Your task to perform on an android device: remove spam from my inbox in the gmail app Image 0: 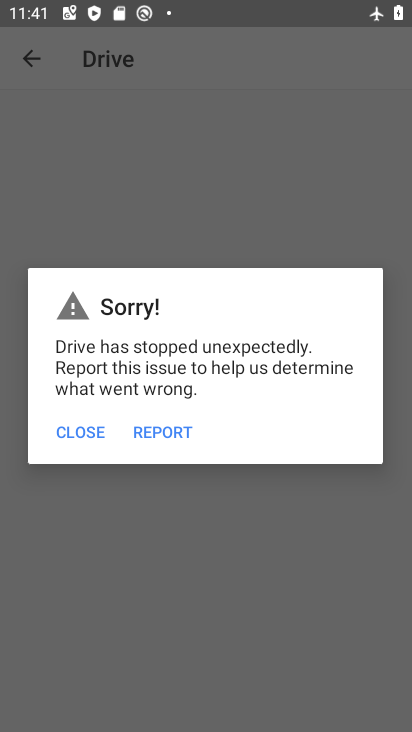
Step 0: press home button
Your task to perform on an android device: remove spam from my inbox in the gmail app Image 1: 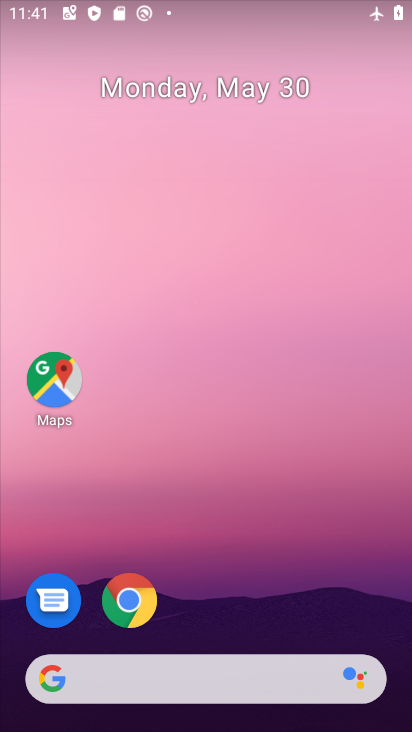
Step 1: drag from (206, 708) to (204, 198)
Your task to perform on an android device: remove spam from my inbox in the gmail app Image 2: 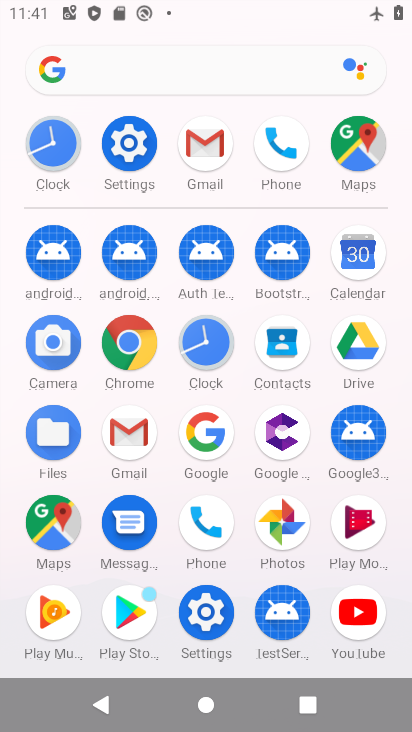
Step 2: click (136, 442)
Your task to perform on an android device: remove spam from my inbox in the gmail app Image 3: 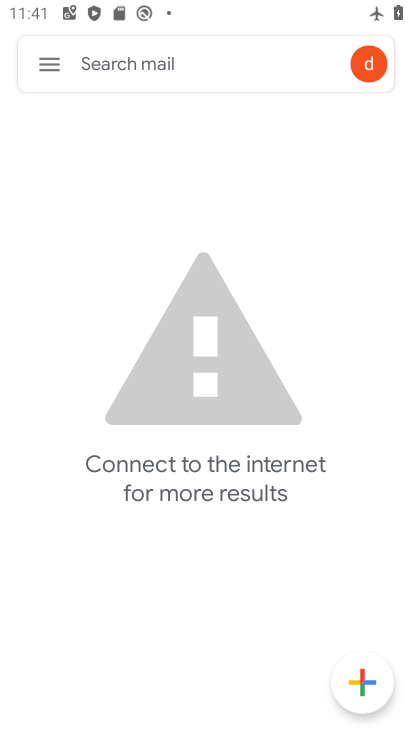
Step 3: click (42, 68)
Your task to perform on an android device: remove spam from my inbox in the gmail app Image 4: 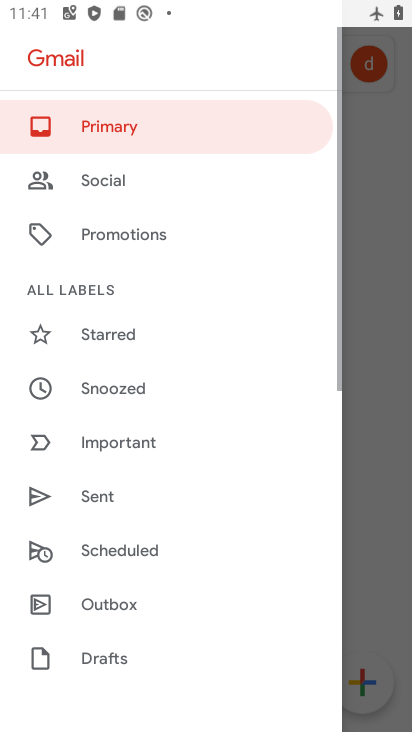
Step 4: drag from (161, 134) to (184, 431)
Your task to perform on an android device: remove spam from my inbox in the gmail app Image 5: 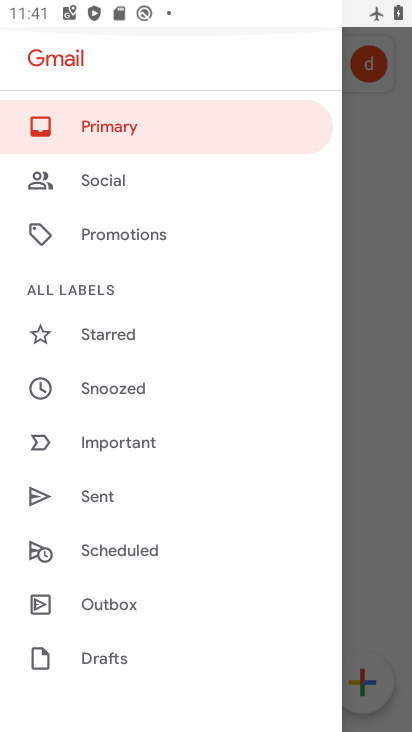
Step 5: click (154, 122)
Your task to perform on an android device: remove spam from my inbox in the gmail app Image 6: 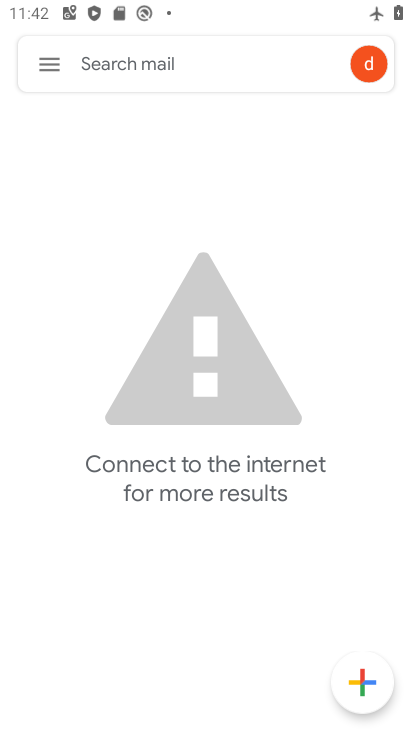
Step 6: task complete